Your task to perform on an android device: stop showing notifications on the lock screen Image 0: 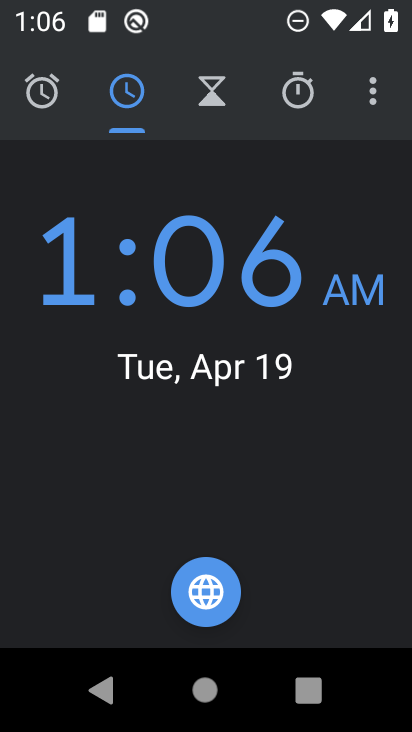
Step 0: click (296, 699)
Your task to perform on an android device: stop showing notifications on the lock screen Image 1: 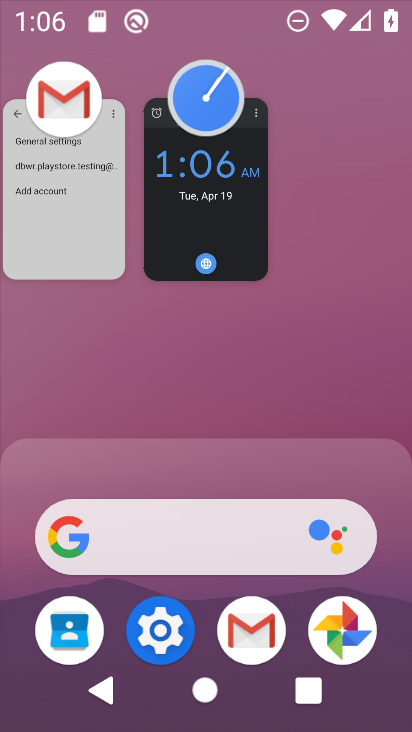
Step 1: drag from (223, 248) to (202, 0)
Your task to perform on an android device: stop showing notifications on the lock screen Image 2: 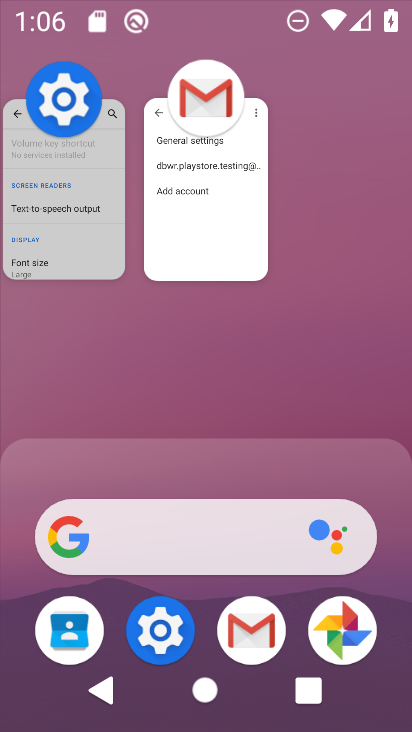
Step 2: drag from (195, 219) to (222, 5)
Your task to perform on an android device: stop showing notifications on the lock screen Image 3: 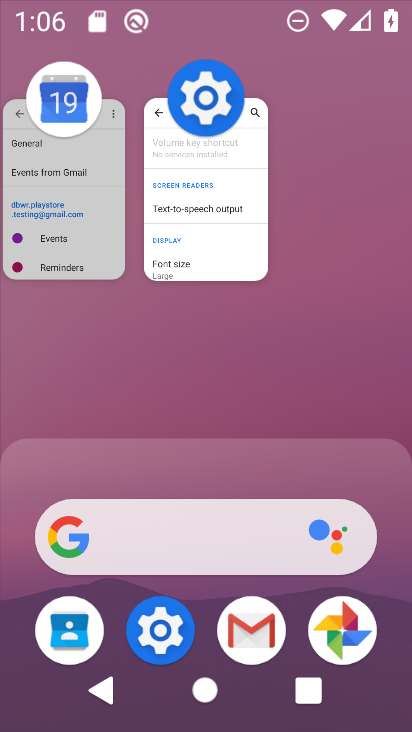
Step 3: drag from (167, 247) to (171, 2)
Your task to perform on an android device: stop showing notifications on the lock screen Image 4: 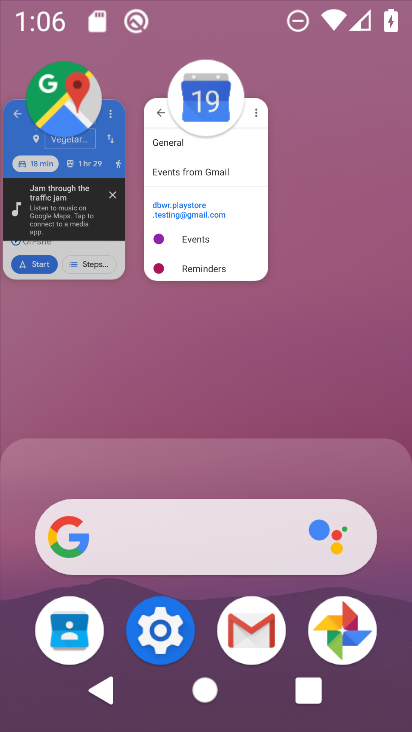
Step 4: drag from (185, 245) to (175, 52)
Your task to perform on an android device: stop showing notifications on the lock screen Image 5: 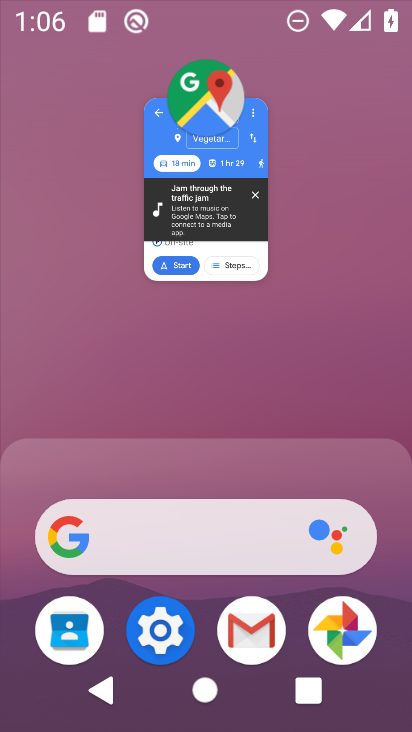
Step 5: drag from (165, 234) to (188, 36)
Your task to perform on an android device: stop showing notifications on the lock screen Image 6: 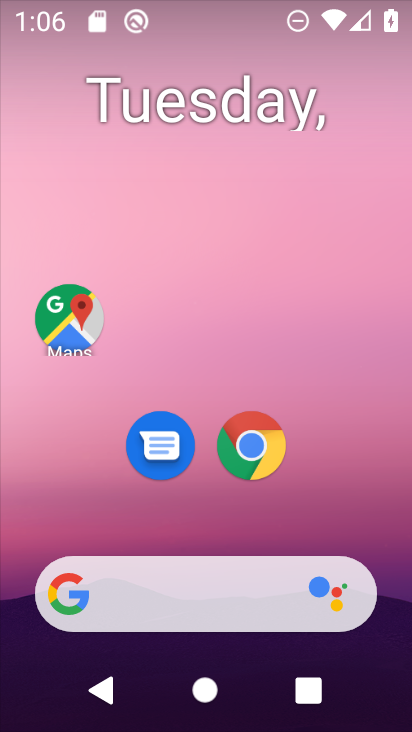
Step 6: drag from (255, 538) to (244, 208)
Your task to perform on an android device: stop showing notifications on the lock screen Image 7: 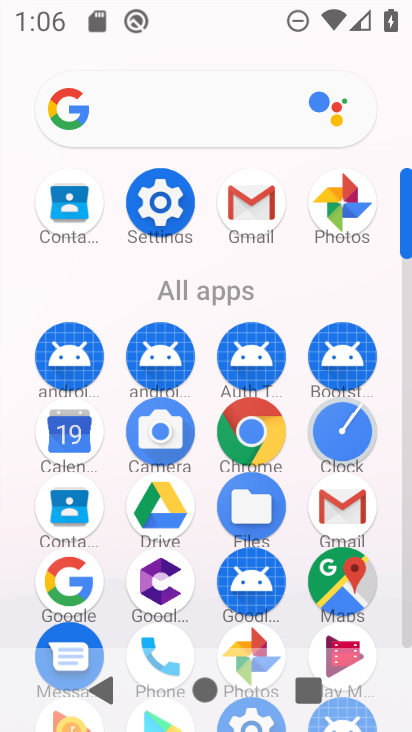
Step 7: click (164, 218)
Your task to perform on an android device: stop showing notifications on the lock screen Image 8: 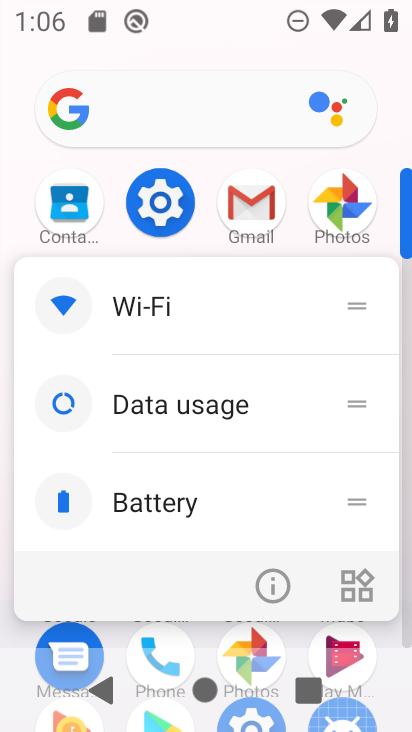
Step 8: click (157, 232)
Your task to perform on an android device: stop showing notifications on the lock screen Image 9: 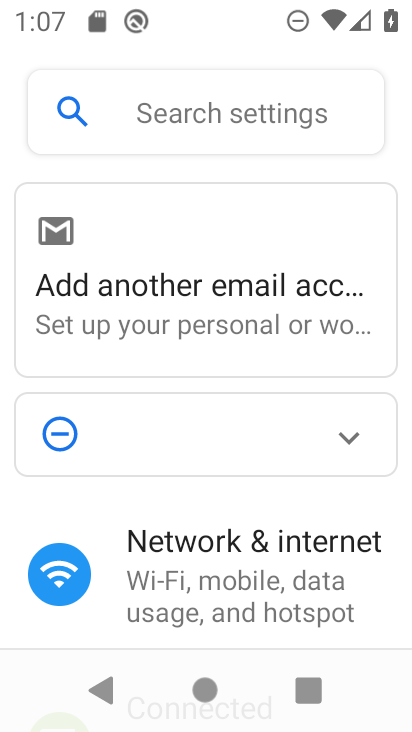
Step 9: drag from (198, 499) to (247, 183)
Your task to perform on an android device: stop showing notifications on the lock screen Image 10: 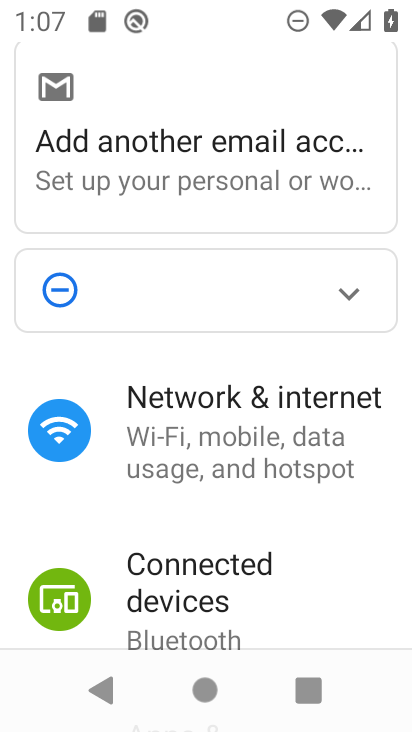
Step 10: drag from (273, 521) to (280, 221)
Your task to perform on an android device: stop showing notifications on the lock screen Image 11: 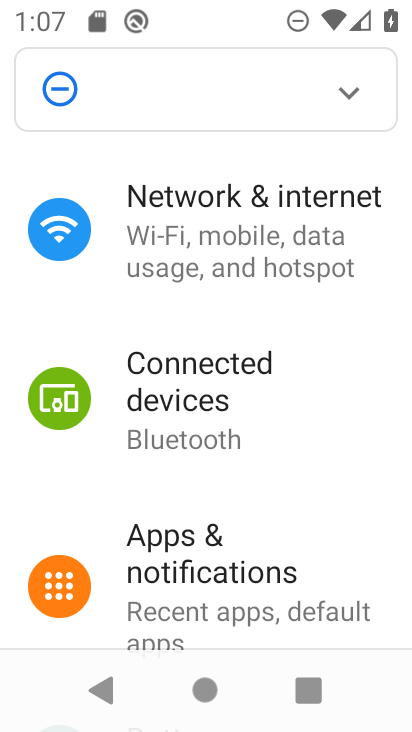
Step 11: drag from (243, 510) to (252, 310)
Your task to perform on an android device: stop showing notifications on the lock screen Image 12: 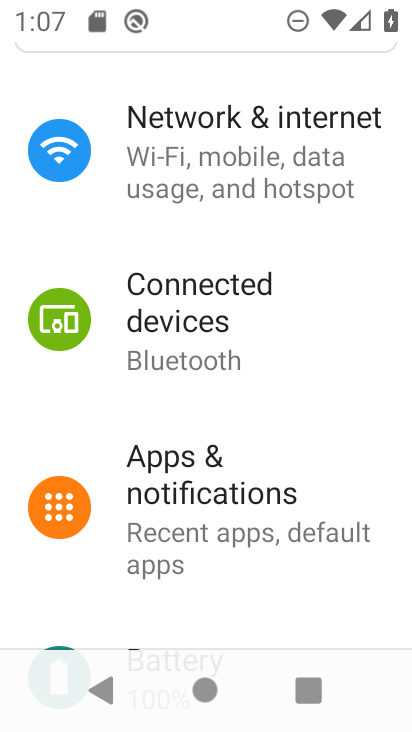
Step 12: click (269, 500)
Your task to perform on an android device: stop showing notifications on the lock screen Image 13: 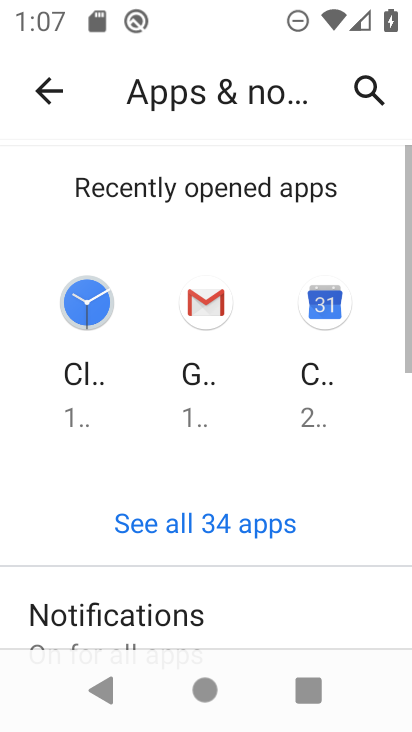
Step 13: drag from (279, 596) to (267, 246)
Your task to perform on an android device: stop showing notifications on the lock screen Image 14: 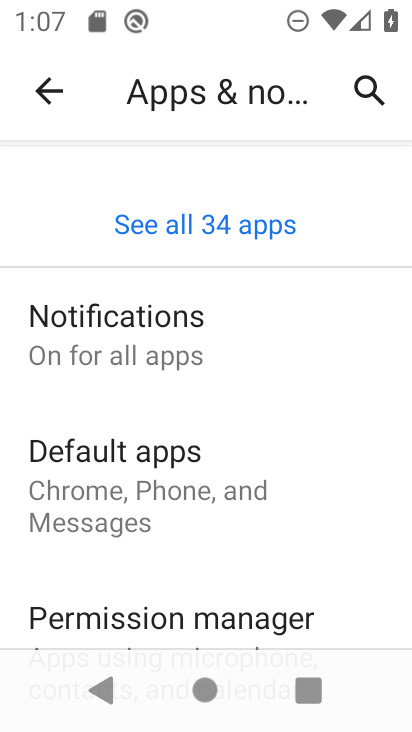
Step 14: click (232, 338)
Your task to perform on an android device: stop showing notifications on the lock screen Image 15: 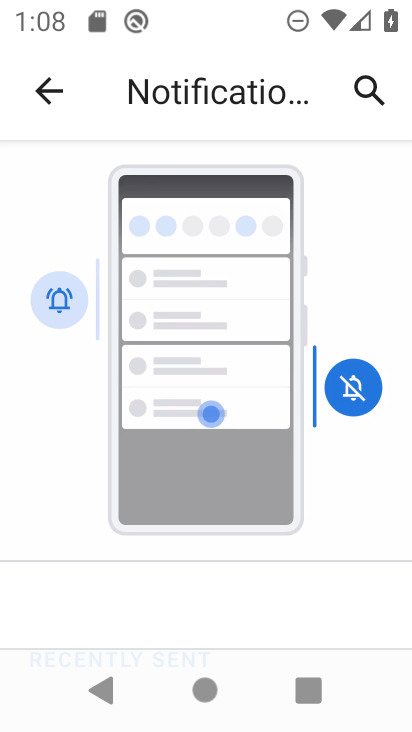
Step 15: drag from (240, 541) to (256, 196)
Your task to perform on an android device: stop showing notifications on the lock screen Image 16: 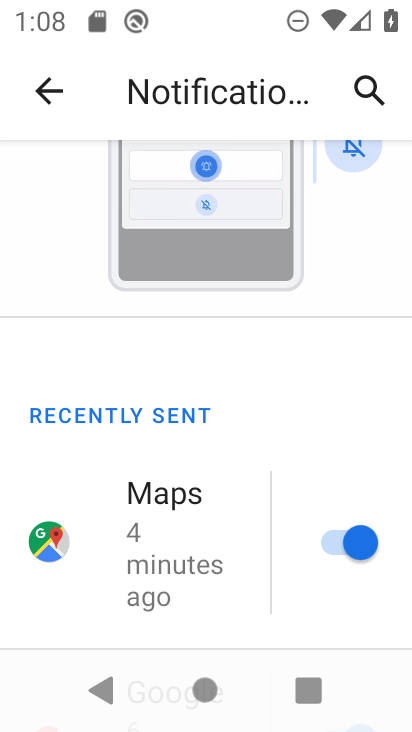
Step 16: drag from (271, 437) to (269, 165)
Your task to perform on an android device: stop showing notifications on the lock screen Image 17: 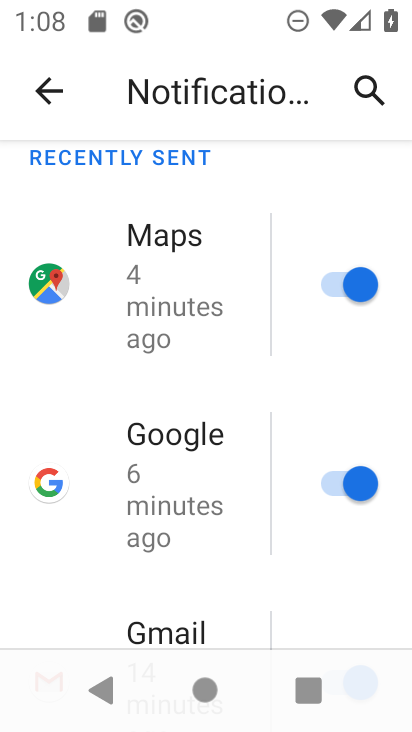
Step 17: drag from (246, 487) to (245, 215)
Your task to perform on an android device: stop showing notifications on the lock screen Image 18: 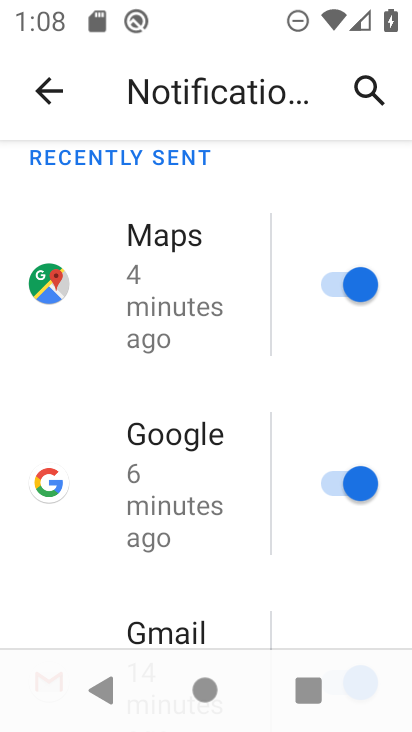
Step 18: drag from (240, 622) to (259, 233)
Your task to perform on an android device: stop showing notifications on the lock screen Image 19: 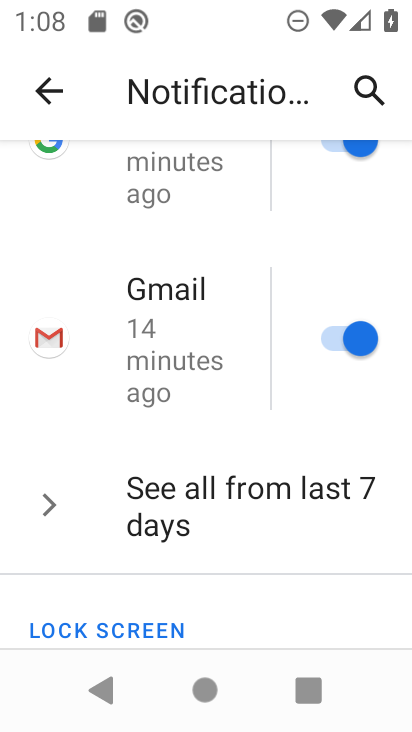
Step 19: drag from (266, 569) to (261, 245)
Your task to perform on an android device: stop showing notifications on the lock screen Image 20: 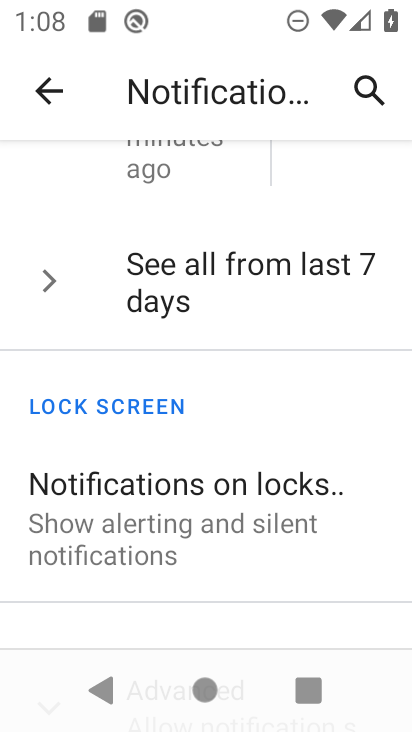
Step 20: click (257, 503)
Your task to perform on an android device: stop showing notifications on the lock screen Image 21: 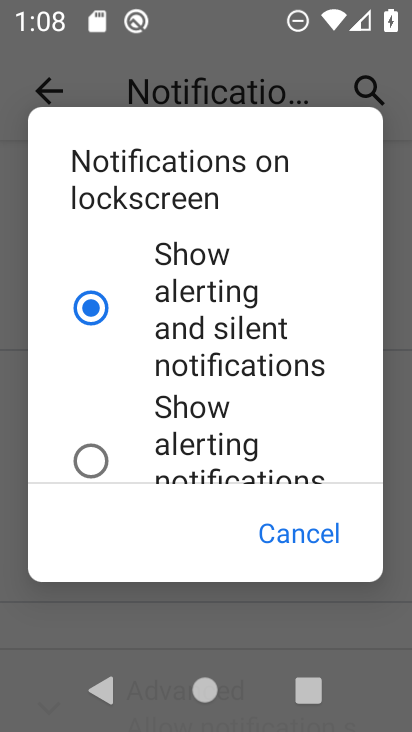
Step 21: drag from (234, 415) to (233, 179)
Your task to perform on an android device: stop showing notifications on the lock screen Image 22: 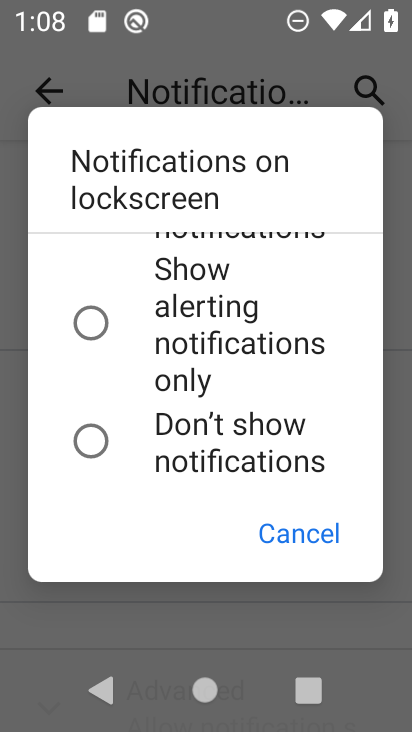
Step 22: click (226, 446)
Your task to perform on an android device: stop showing notifications on the lock screen Image 23: 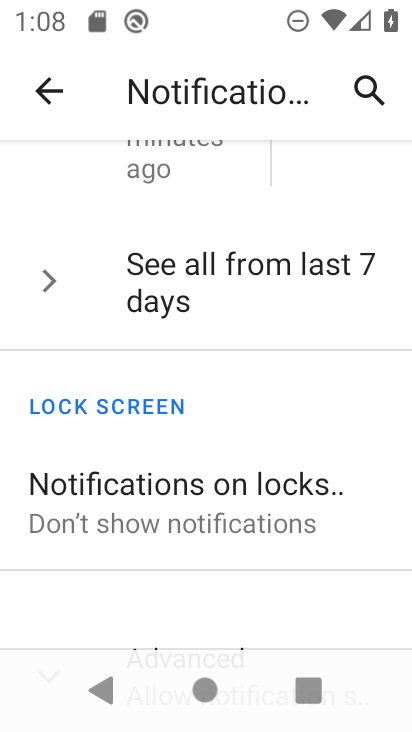
Step 23: task complete